Your task to perform on an android device: Search for pizza restaurants on Maps Image 0: 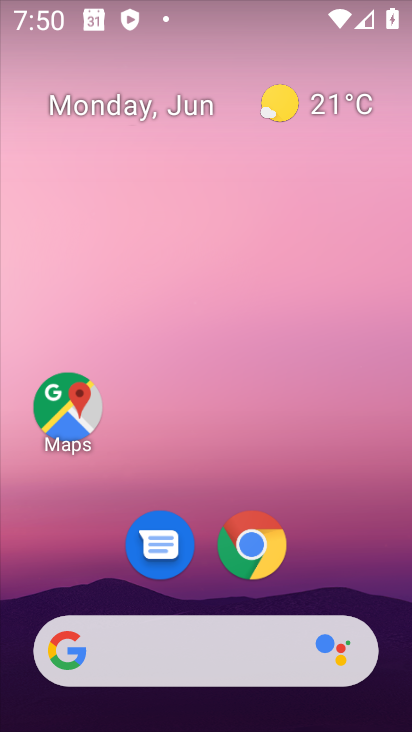
Step 0: click (57, 413)
Your task to perform on an android device: Search for pizza restaurants on Maps Image 1: 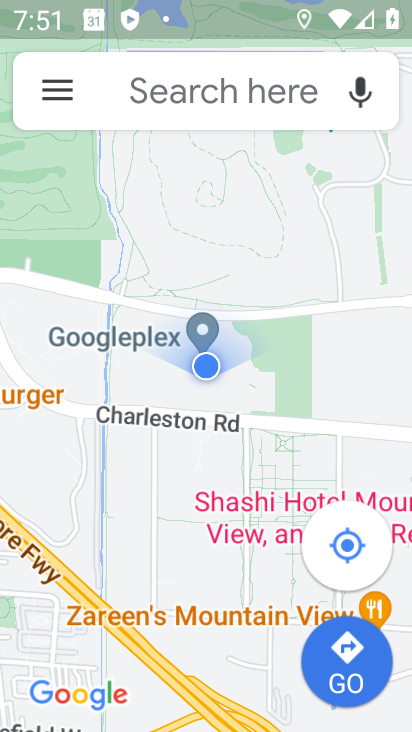
Step 1: click (236, 68)
Your task to perform on an android device: Search for pizza restaurants on Maps Image 2: 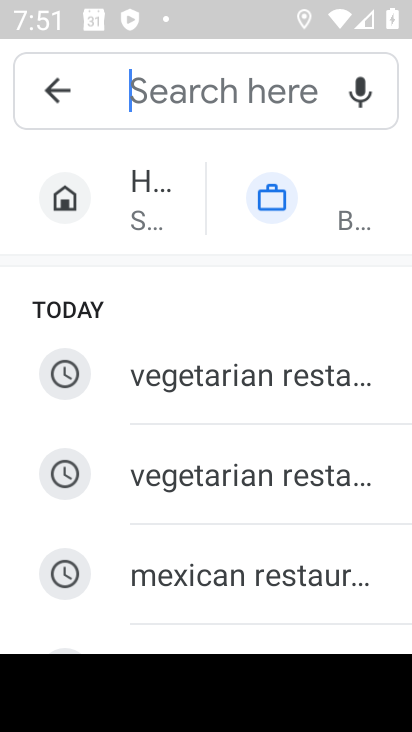
Step 2: type "pizza restaurants"
Your task to perform on an android device: Search for pizza restaurants on Maps Image 3: 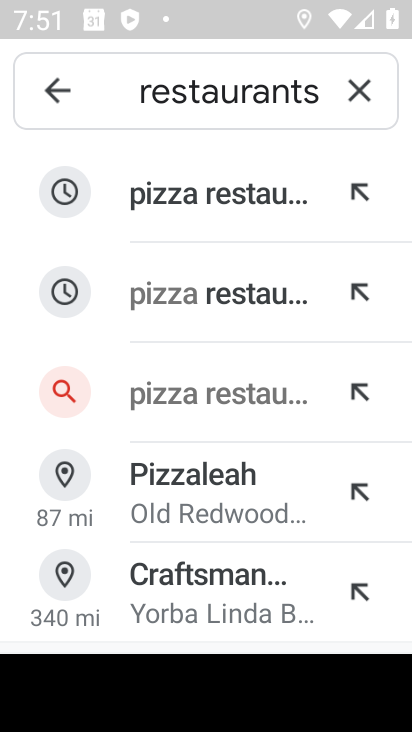
Step 3: press enter
Your task to perform on an android device: Search for pizza restaurants on Maps Image 4: 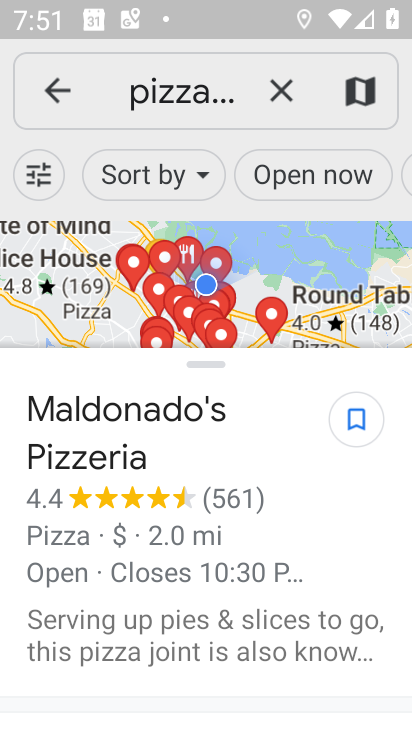
Step 4: task complete